Your task to perform on an android device: When is my next appointment? Image 0: 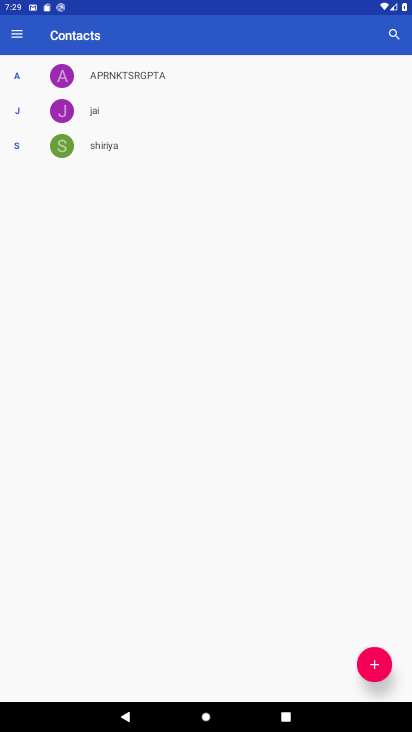
Step 0: press home button
Your task to perform on an android device: When is my next appointment? Image 1: 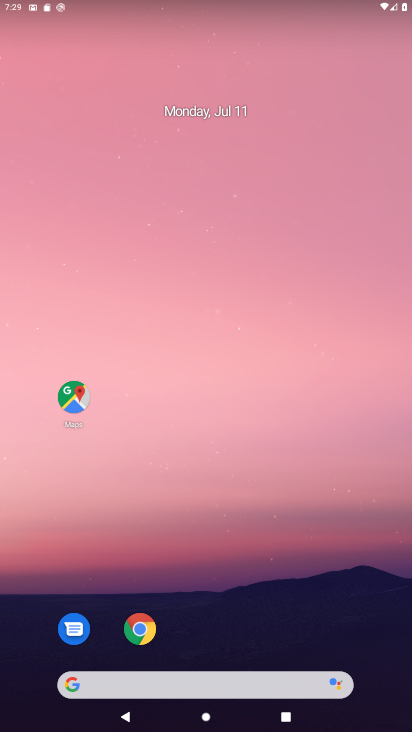
Step 1: drag from (346, 599) to (366, 207)
Your task to perform on an android device: When is my next appointment? Image 2: 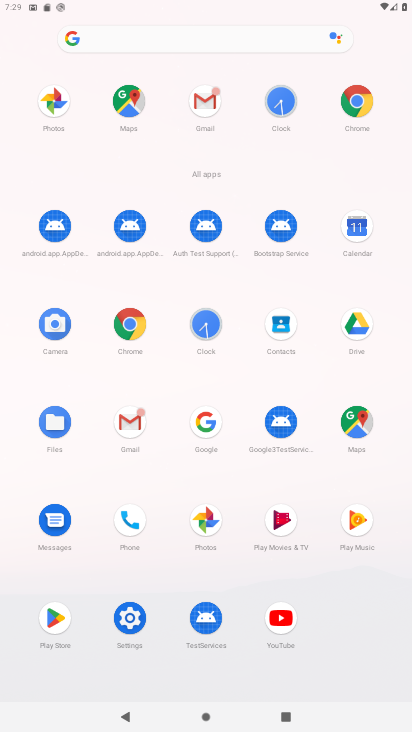
Step 2: click (361, 233)
Your task to perform on an android device: When is my next appointment? Image 3: 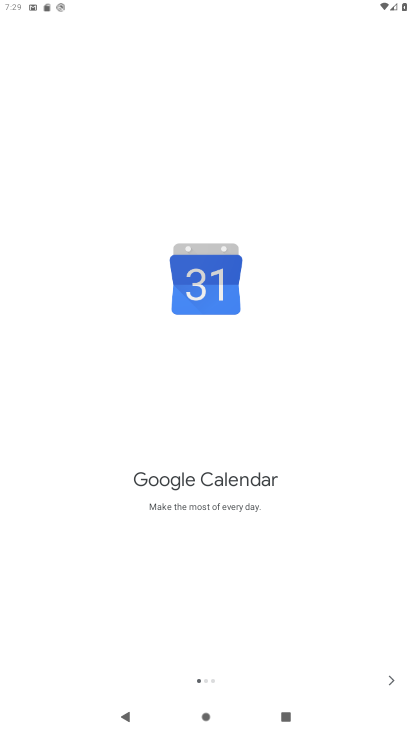
Step 3: click (389, 684)
Your task to perform on an android device: When is my next appointment? Image 4: 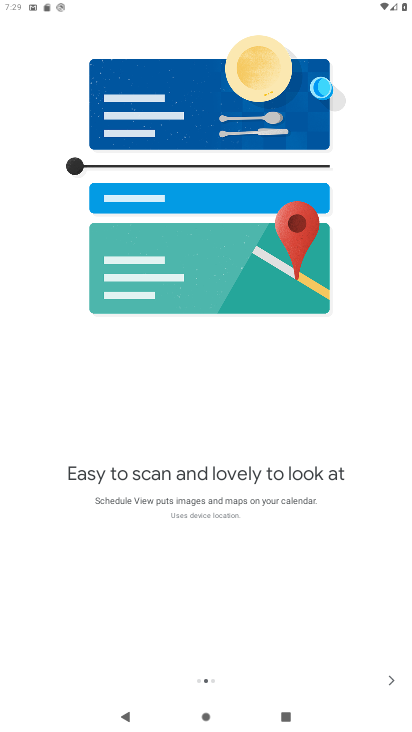
Step 4: click (389, 684)
Your task to perform on an android device: When is my next appointment? Image 5: 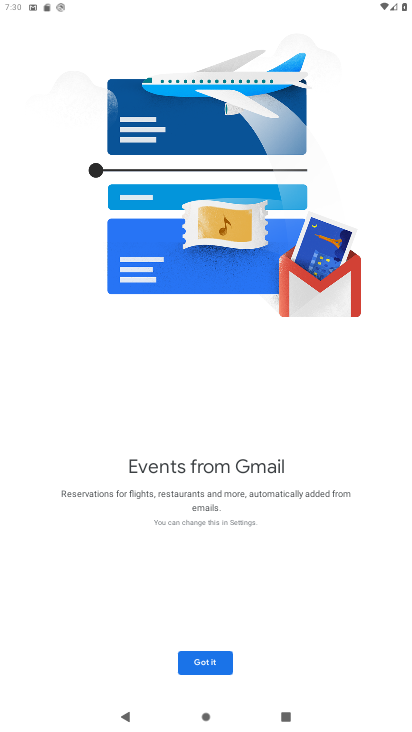
Step 5: click (212, 661)
Your task to perform on an android device: When is my next appointment? Image 6: 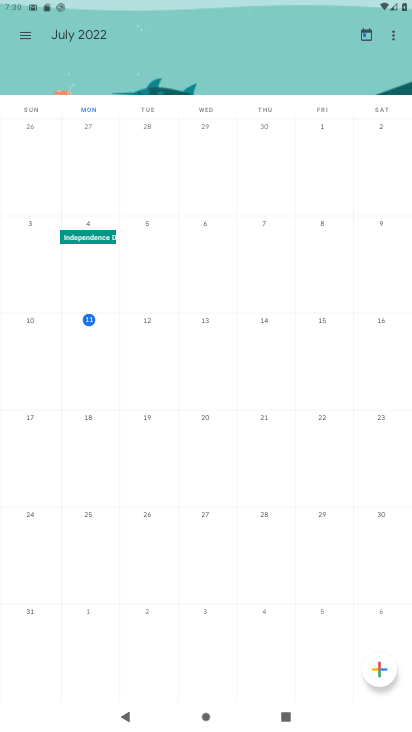
Step 6: click (21, 32)
Your task to perform on an android device: When is my next appointment? Image 7: 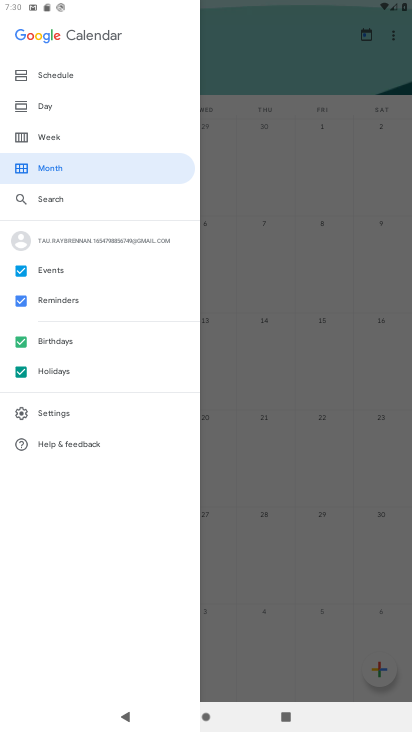
Step 7: click (75, 72)
Your task to perform on an android device: When is my next appointment? Image 8: 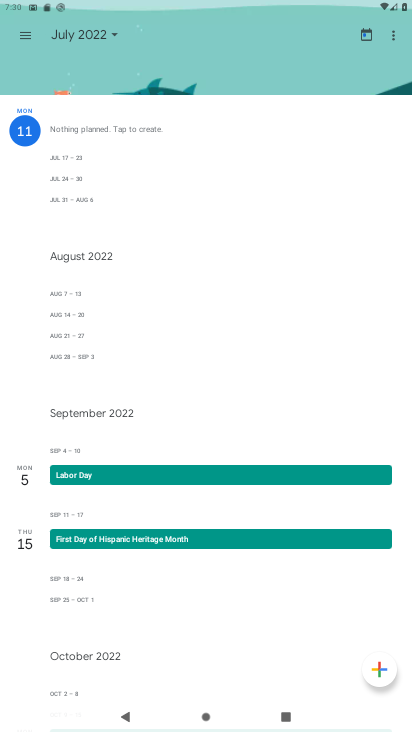
Step 8: task complete